Your task to perform on an android device: turn off location history Image 0: 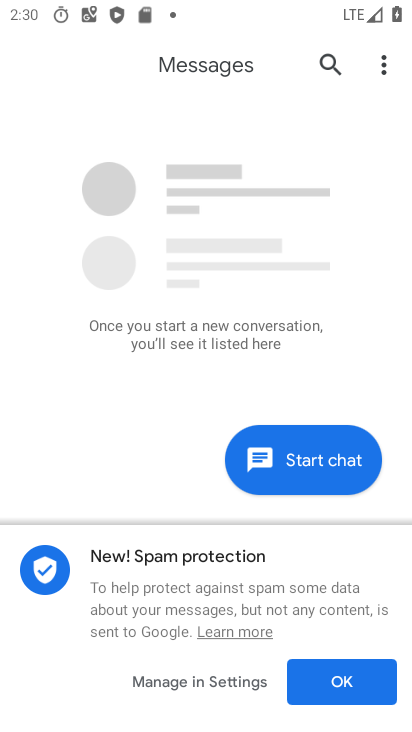
Step 0: press home button
Your task to perform on an android device: turn off location history Image 1: 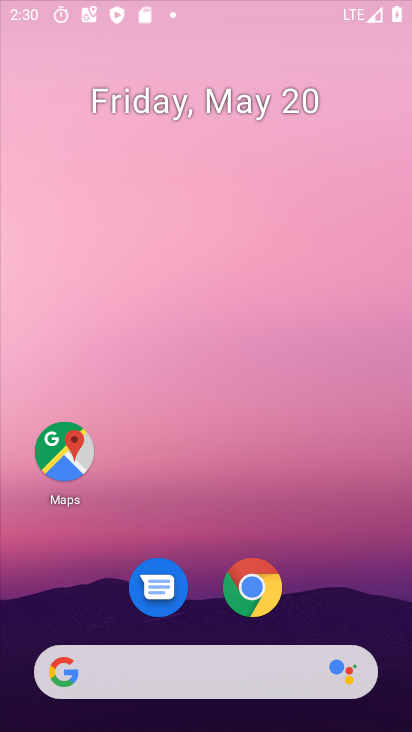
Step 1: drag from (363, 581) to (378, 158)
Your task to perform on an android device: turn off location history Image 2: 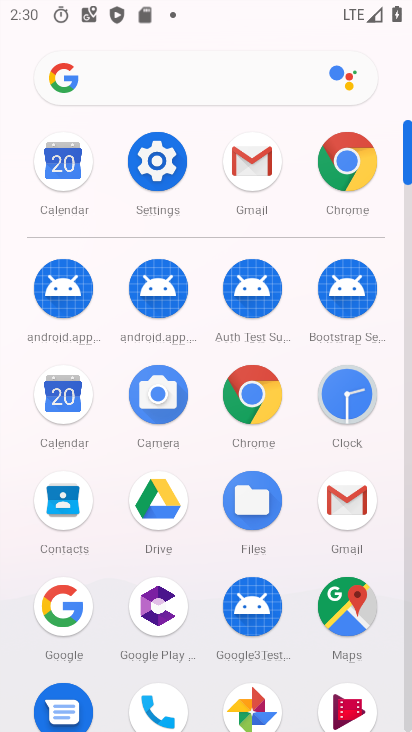
Step 2: click (169, 165)
Your task to perform on an android device: turn off location history Image 3: 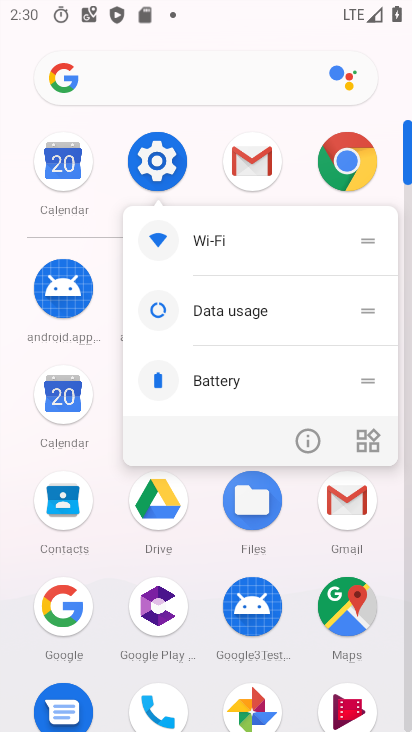
Step 3: click (169, 165)
Your task to perform on an android device: turn off location history Image 4: 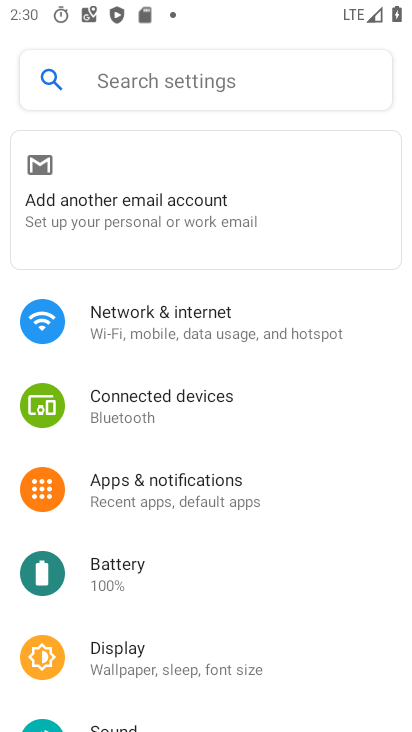
Step 4: drag from (282, 588) to (326, 336)
Your task to perform on an android device: turn off location history Image 5: 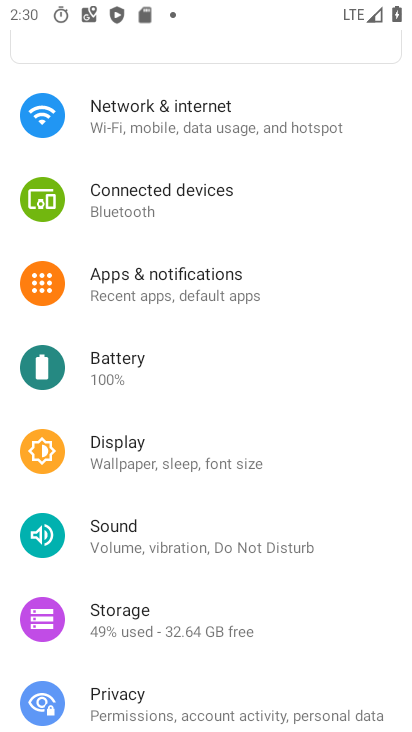
Step 5: drag from (205, 592) to (283, 143)
Your task to perform on an android device: turn off location history Image 6: 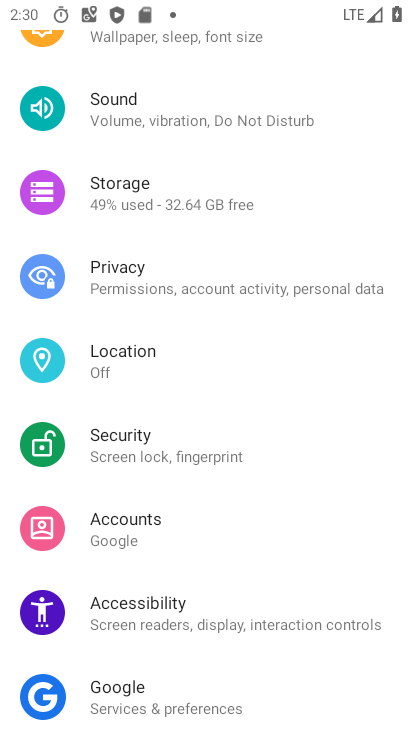
Step 6: click (91, 344)
Your task to perform on an android device: turn off location history Image 7: 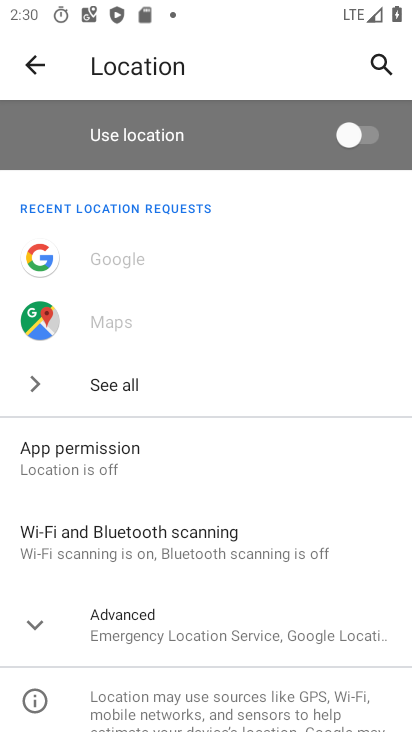
Step 7: drag from (253, 457) to (366, 102)
Your task to perform on an android device: turn off location history Image 8: 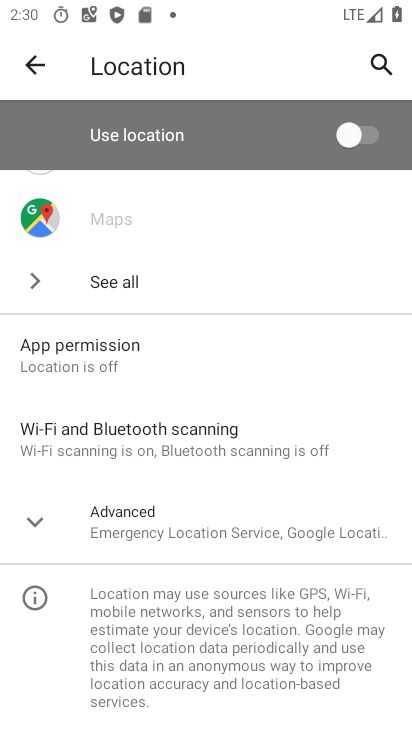
Step 8: click (250, 529)
Your task to perform on an android device: turn off location history Image 9: 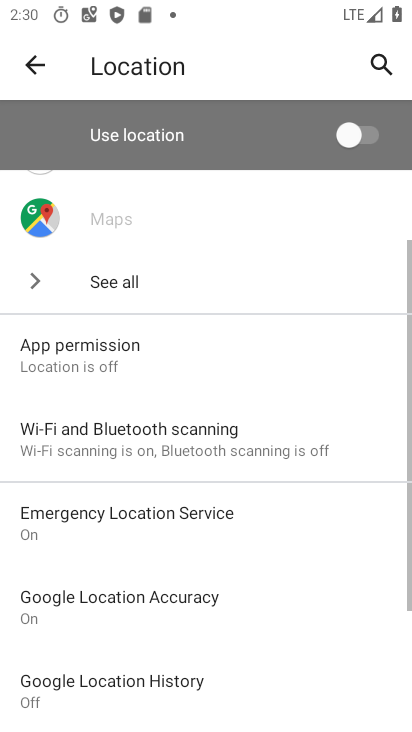
Step 9: drag from (250, 529) to (361, 263)
Your task to perform on an android device: turn off location history Image 10: 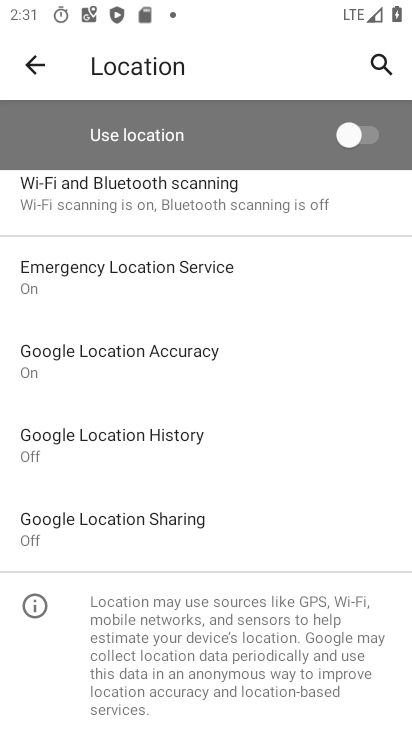
Step 10: click (172, 437)
Your task to perform on an android device: turn off location history Image 11: 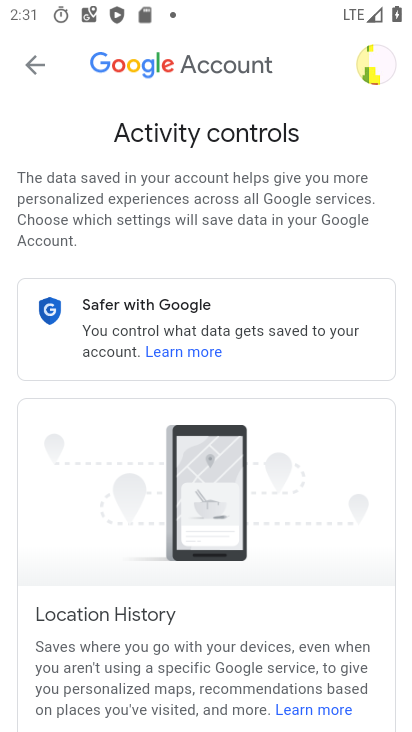
Step 11: task complete